Your task to perform on an android device: Add acer predator to the cart on newegg, then select checkout. Image 0: 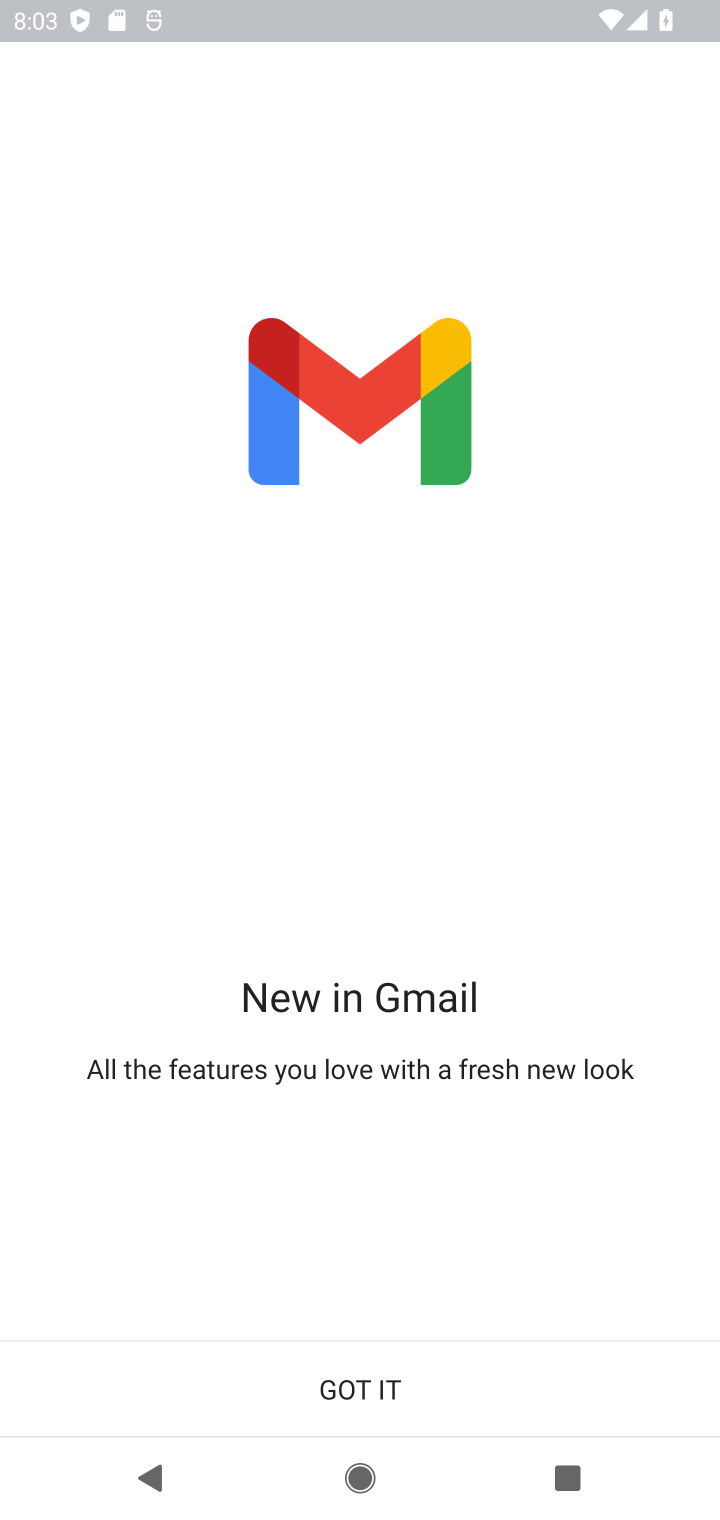
Step 0: press home button
Your task to perform on an android device: Add acer predator to the cart on newegg, then select checkout. Image 1: 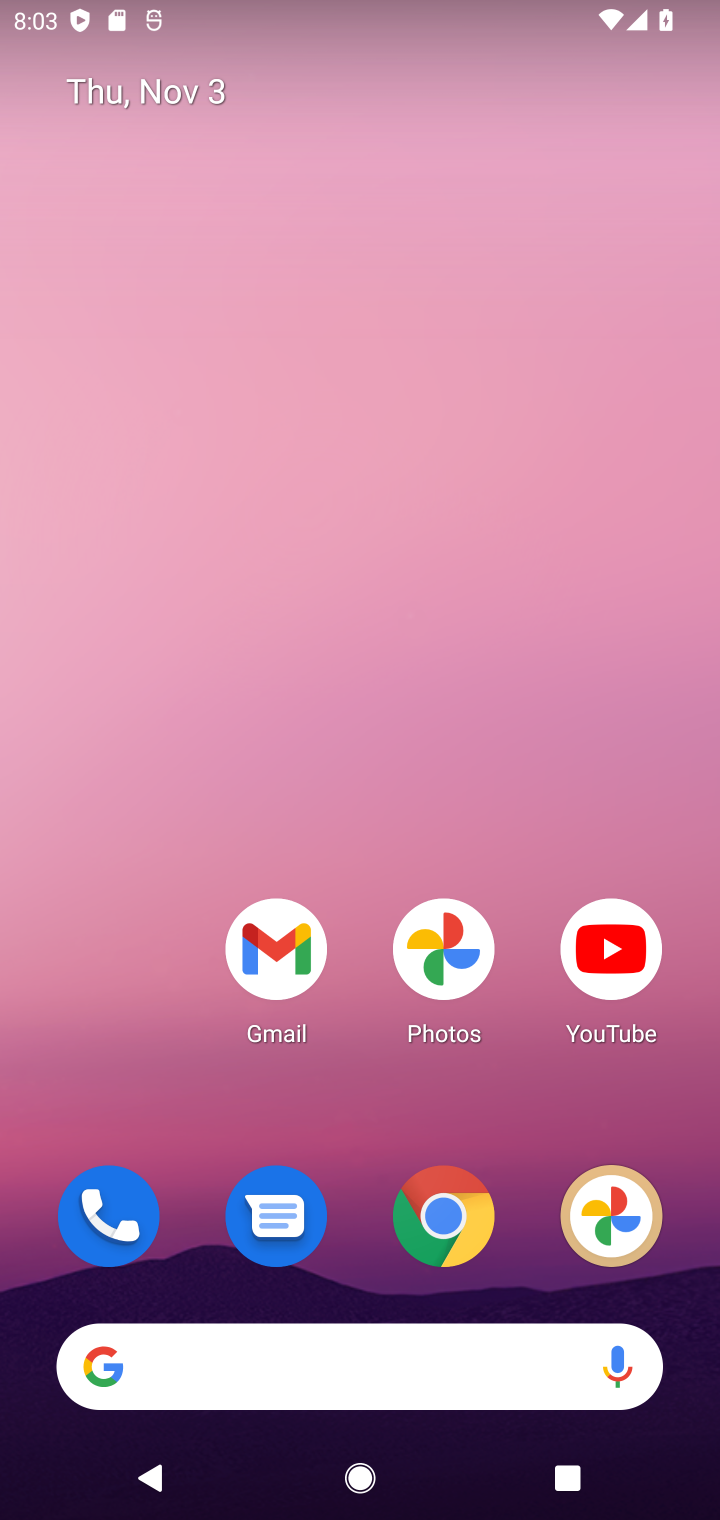
Step 1: click (455, 1250)
Your task to perform on an android device: Add acer predator to the cart on newegg, then select checkout. Image 2: 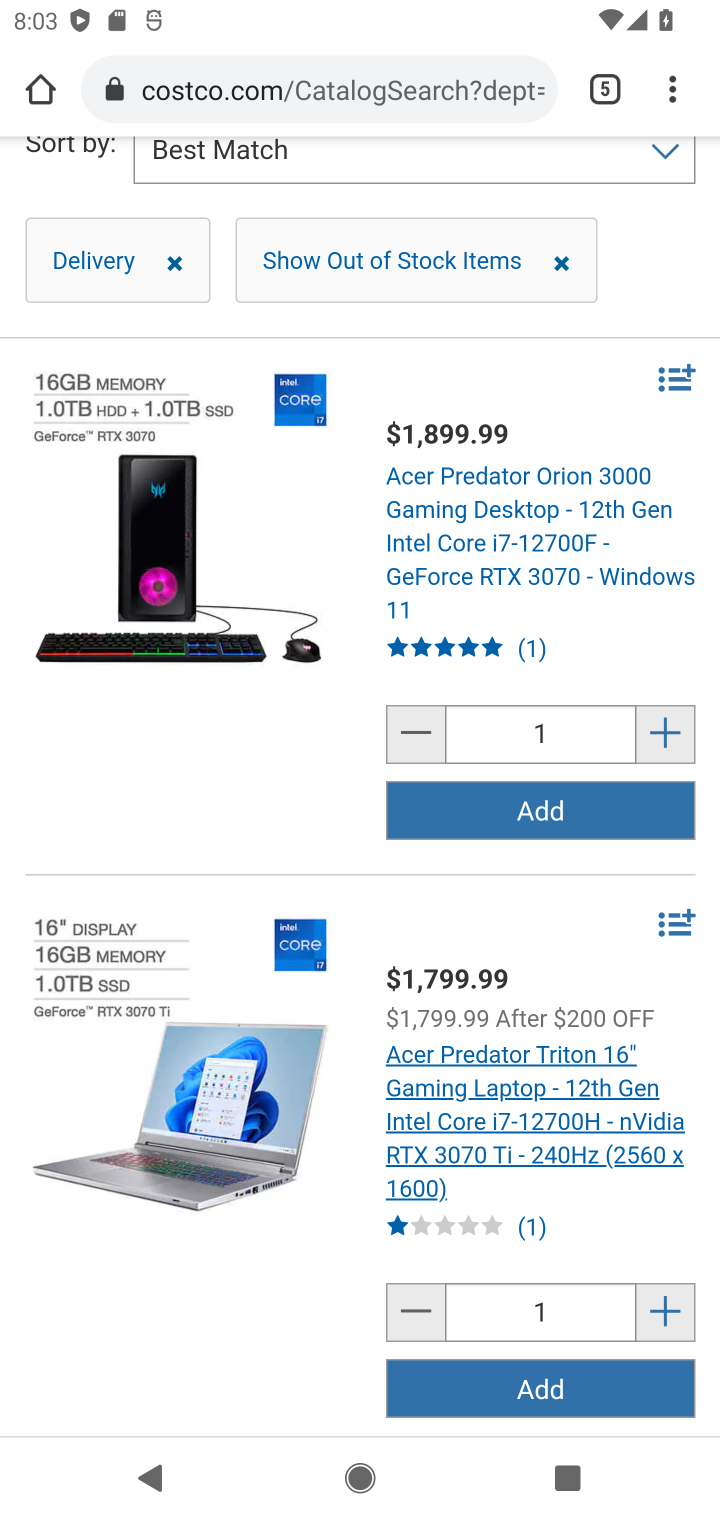
Step 2: click (594, 88)
Your task to perform on an android device: Add acer predator to the cart on newegg, then select checkout. Image 3: 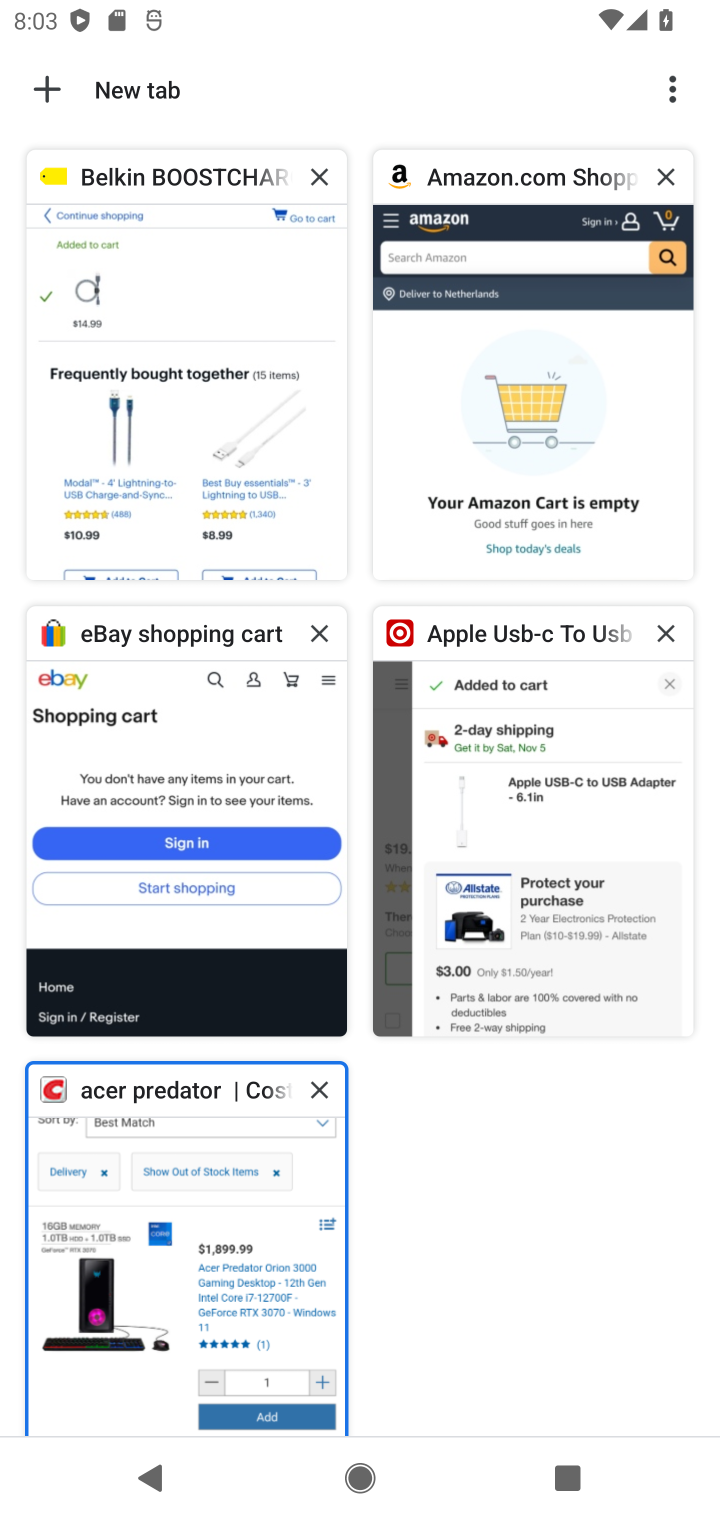
Step 3: click (110, 96)
Your task to perform on an android device: Add acer predator to the cart on newegg, then select checkout. Image 4: 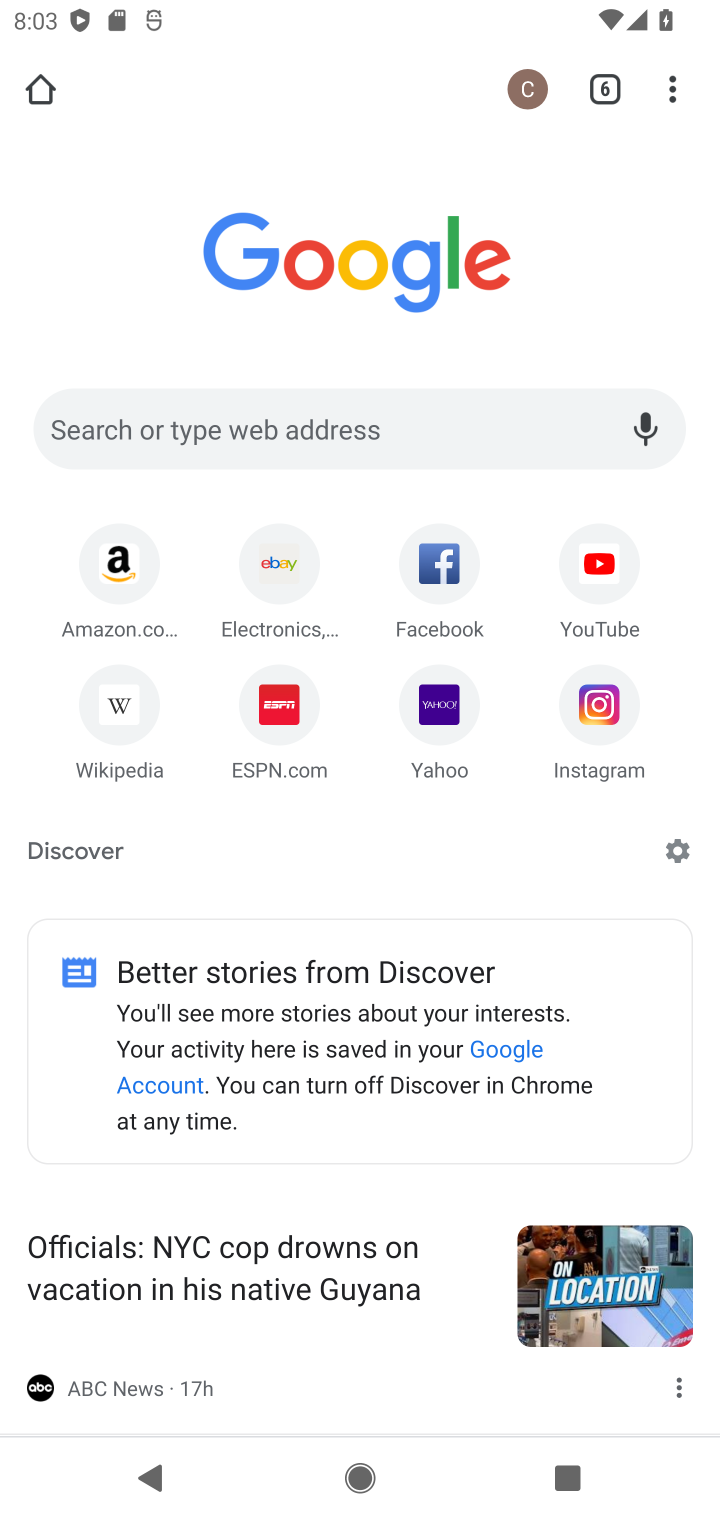
Step 4: click (229, 429)
Your task to perform on an android device: Add acer predator to the cart on newegg, then select checkout. Image 5: 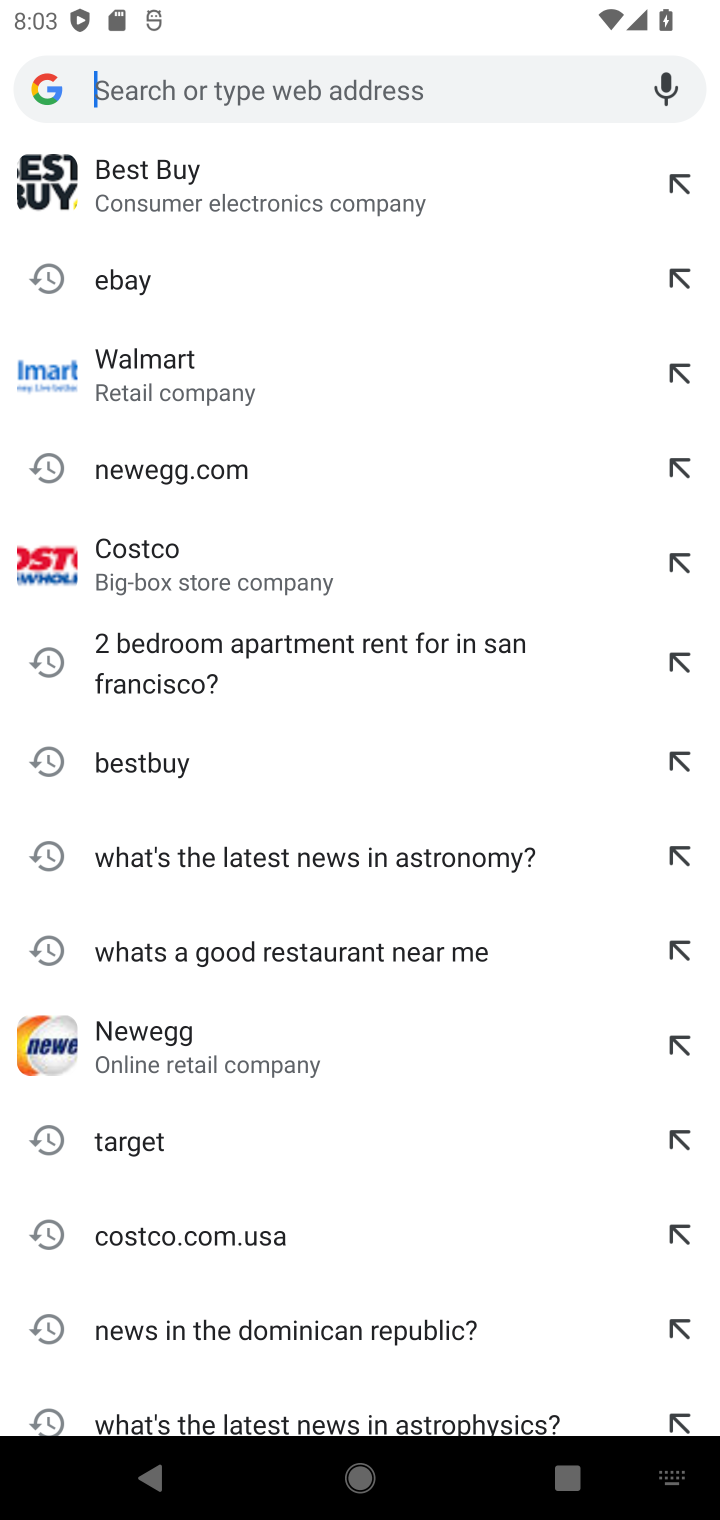
Step 5: click (194, 1047)
Your task to perform on an android device: Add acer predator to the cart on newegg, then select checkout. Image 6: 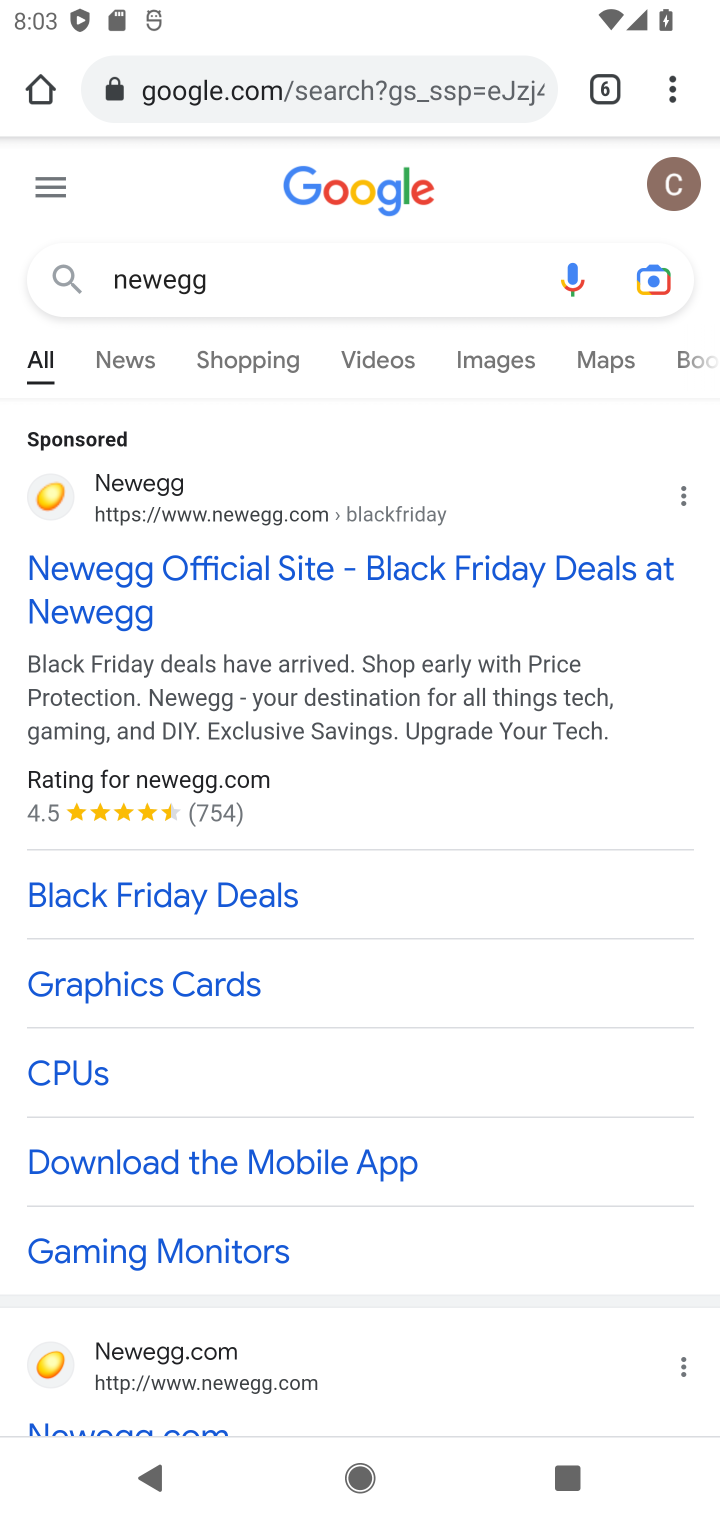
Step 6: click (395, 576)
Your task to perform on an android device: Add acer predator to the cart on newegg, then select checkout. Image 7: 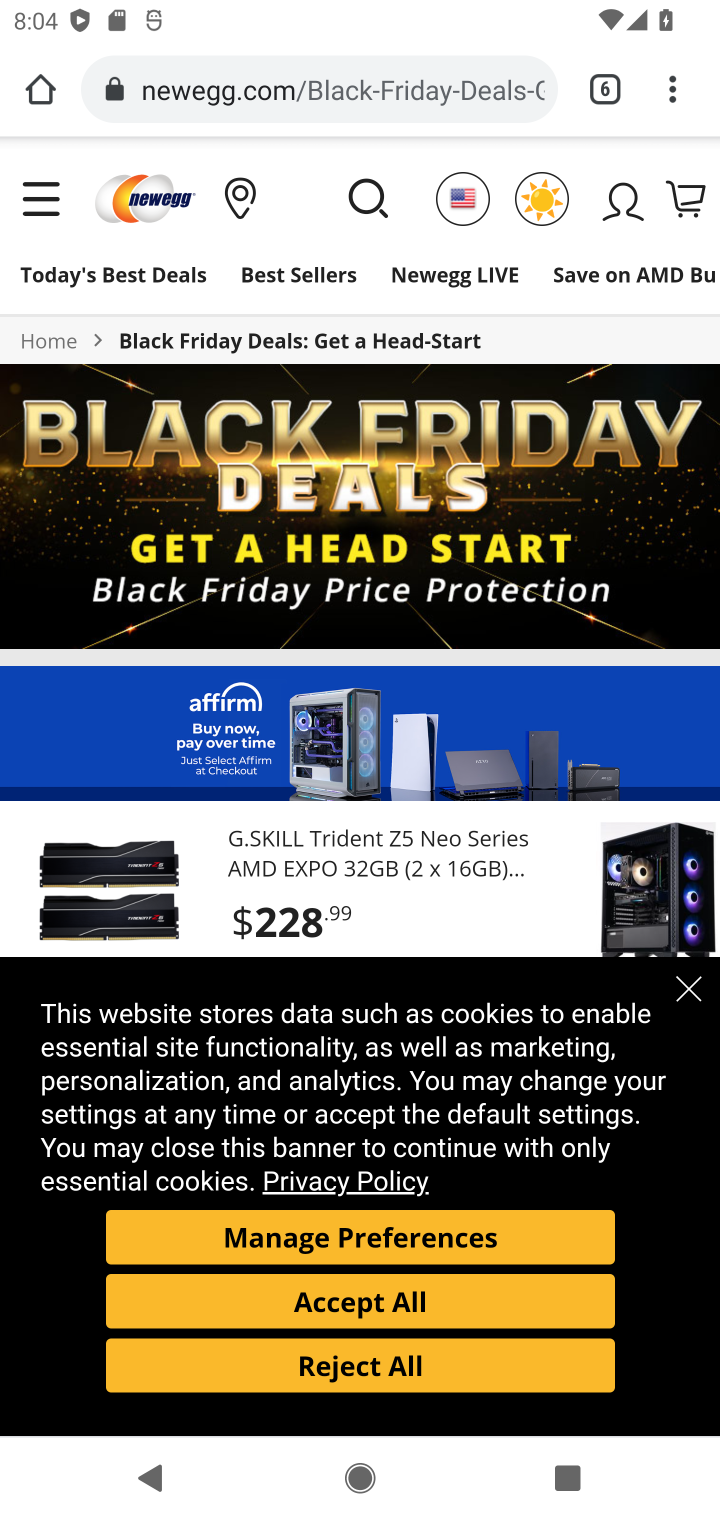
Step 7: click (460, 194)
Your task to perform on an android device: Add acer predator to the cart on newegg, then select checkout. Image 8: 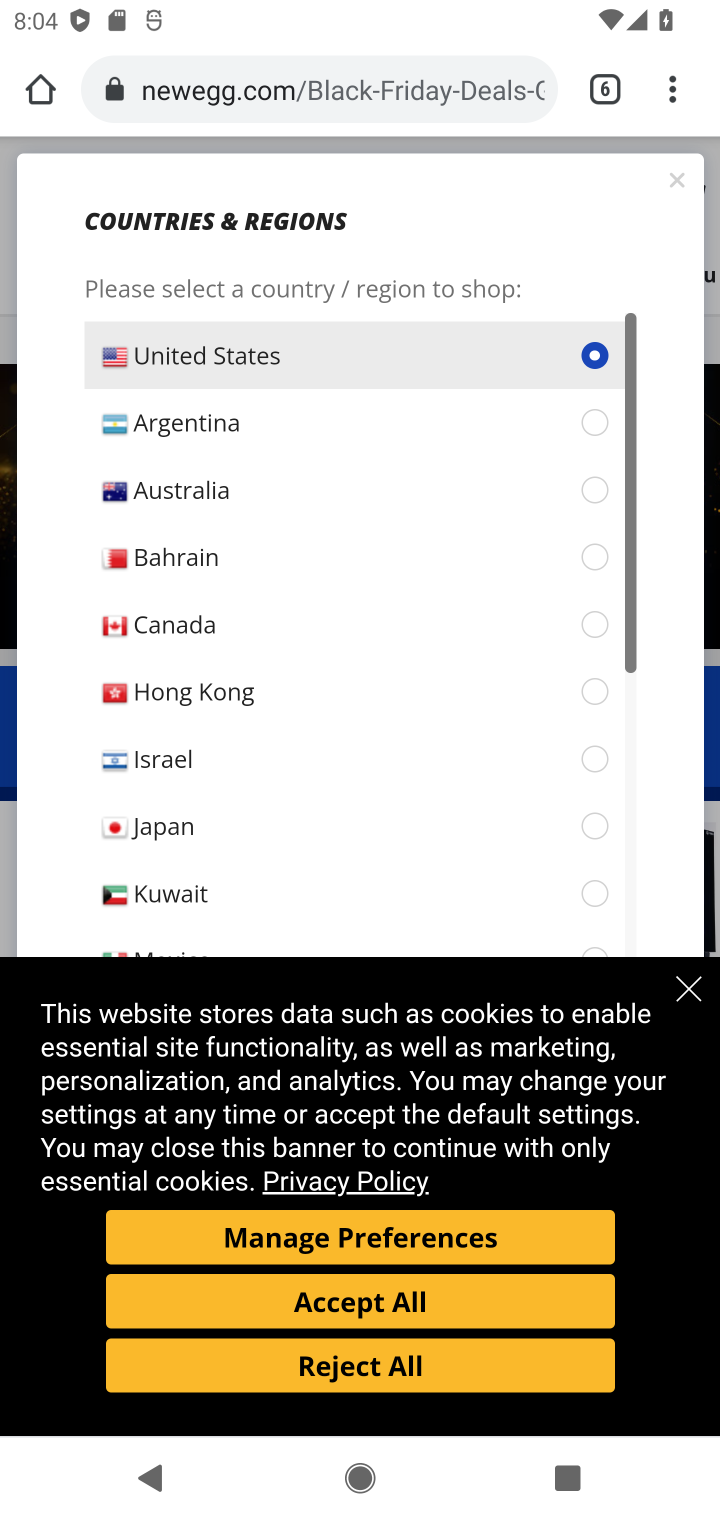
Step 8: click (676, 178)
Your task to perform on an android device: Add acer predator to the cart on newegg, then select checkout. Image 9: 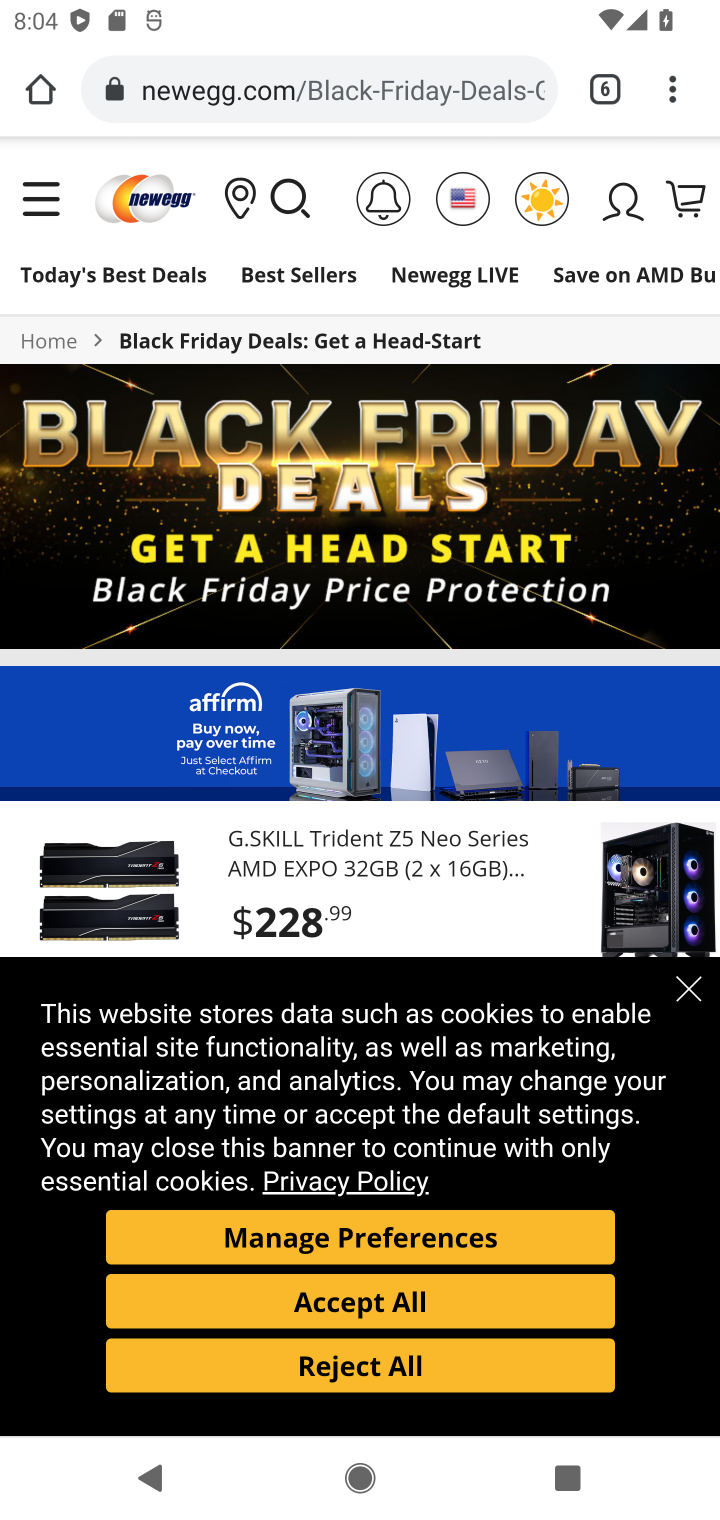
Step 9: click (284, 203)
Your task to perform on an android device: Add acer predator to the cart on newegg, then select checkout. Image 10: 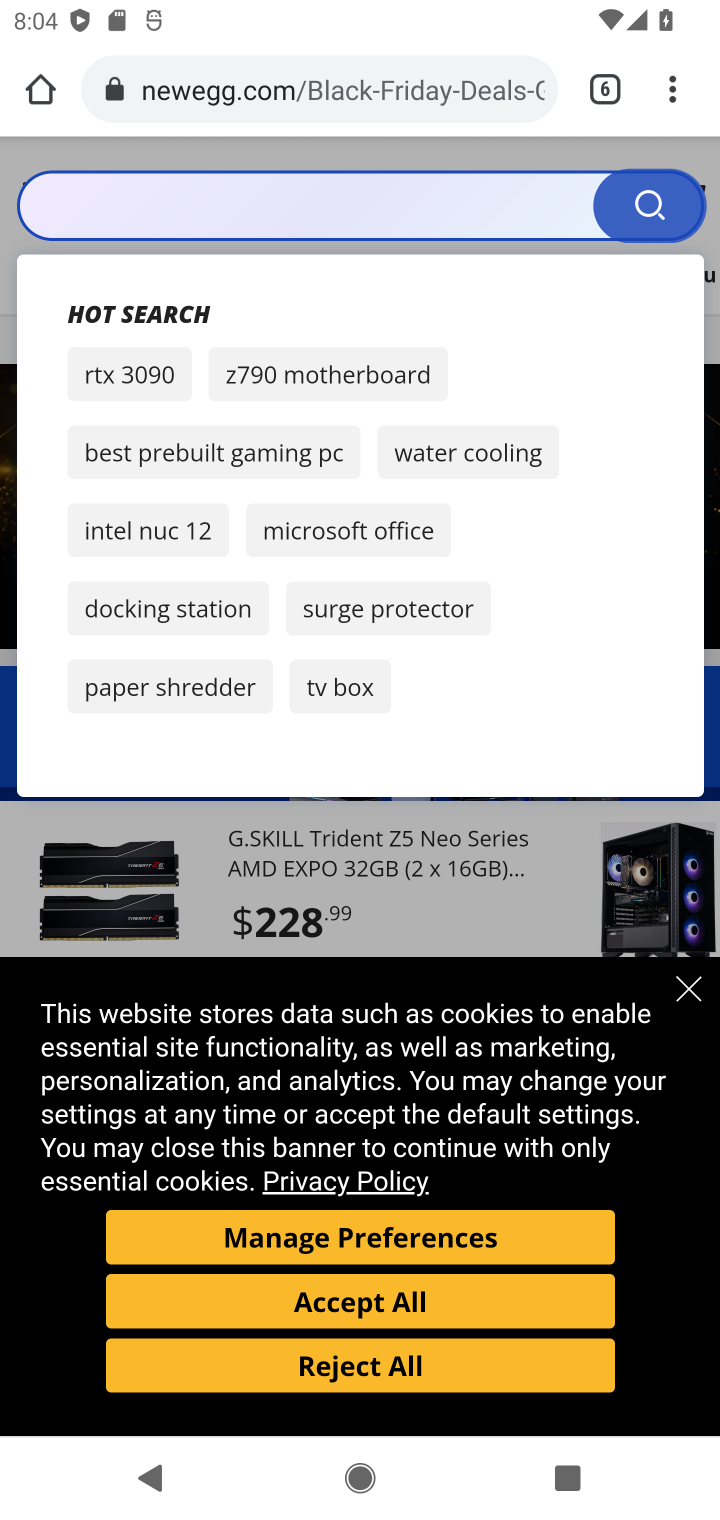
Step 10: click (274, 213)
Your task to perform on an android device: Add acer predator to the cart on newegg, then select checkout. Image 11: 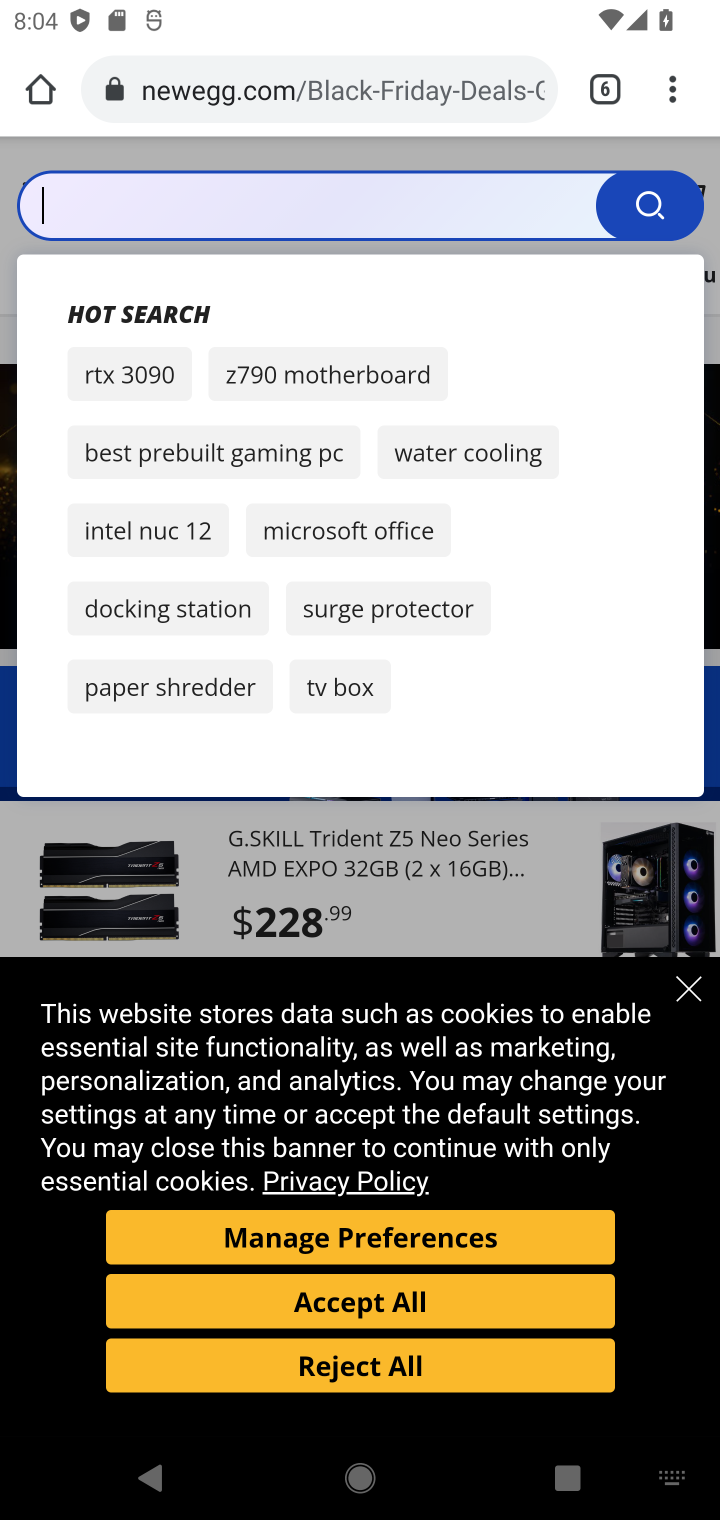
Step 11: type "acer predator"
Your task to perform on an android device: Add acer predator to the cart on newegg, then select checkout. Image 12: 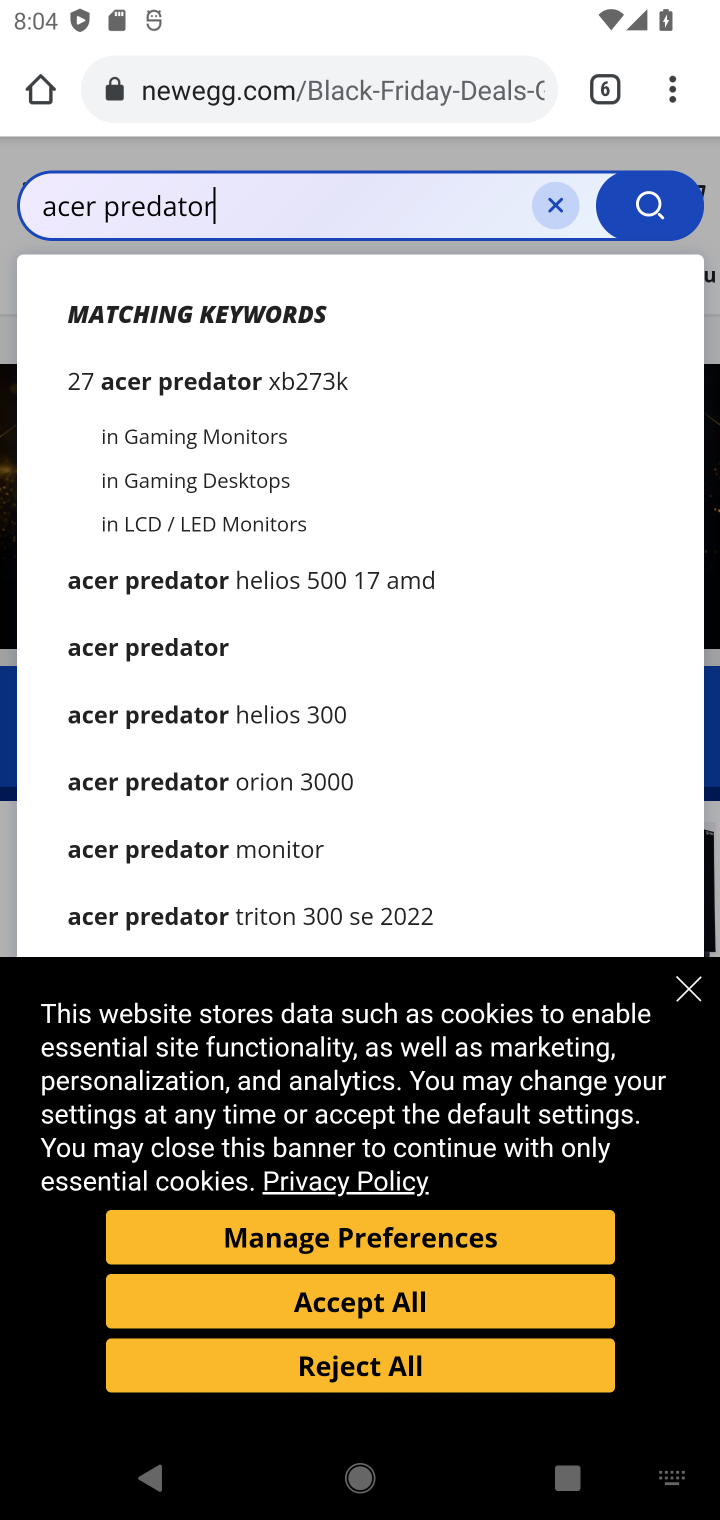
Step 12: click (647, 213)
Your task to perform on an android device: Add acer predator to the cart on newegg, then select checkout. Image 13: 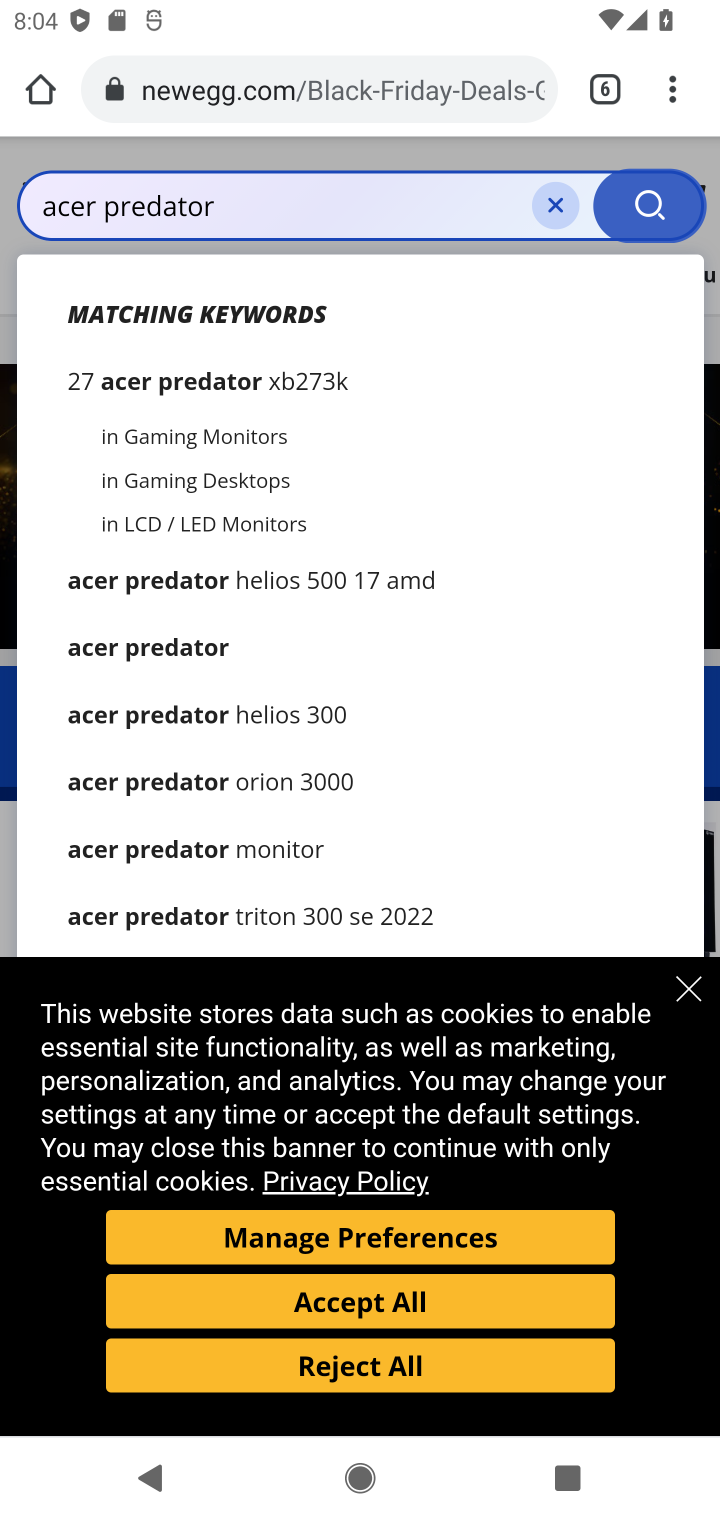
Step 13: press enter
Your task to perform on an android device: Add acer predator to the cart on newegg, then select checkout. Image 14: 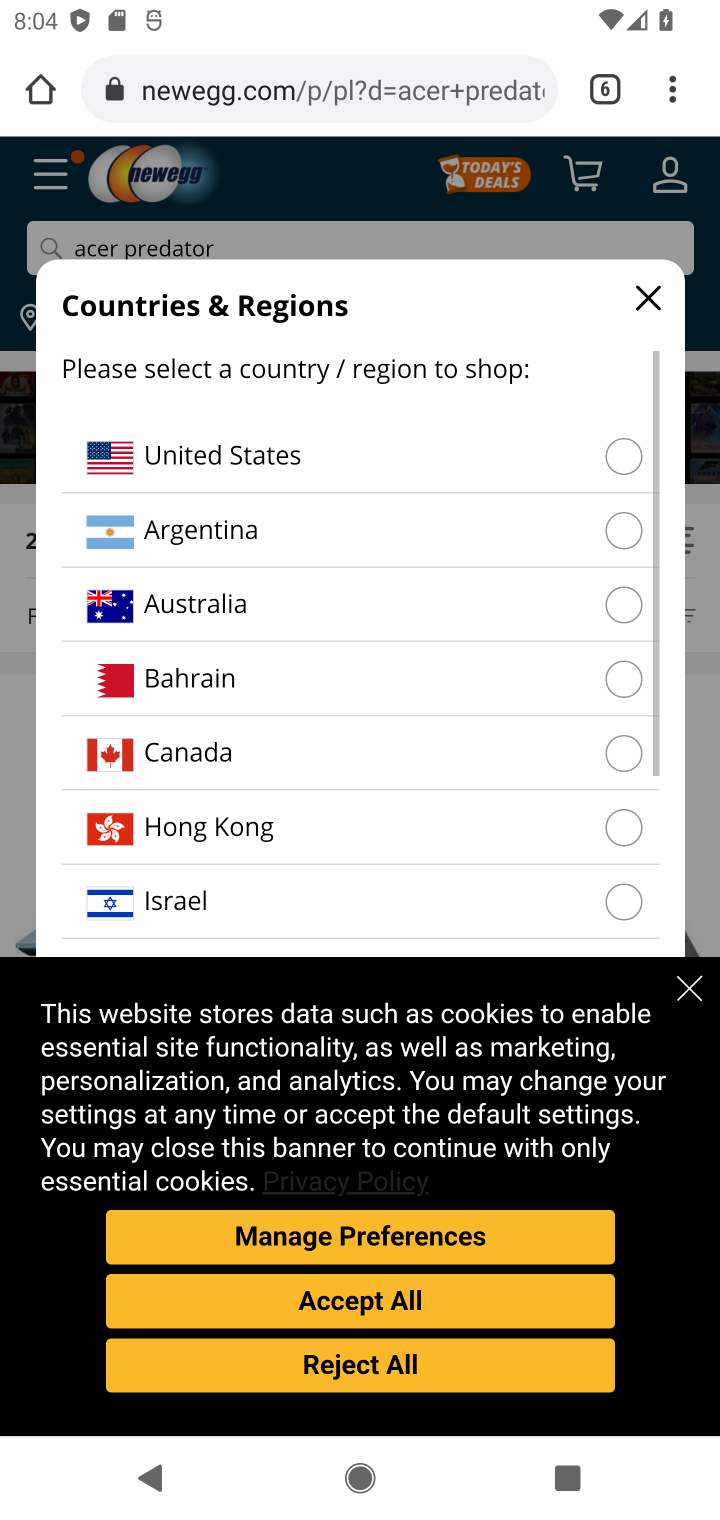
Step 14: click (692, 993)
Your task to perform on an android device: Add acer predator to the cart on newegg, then select checkout. Image 15: 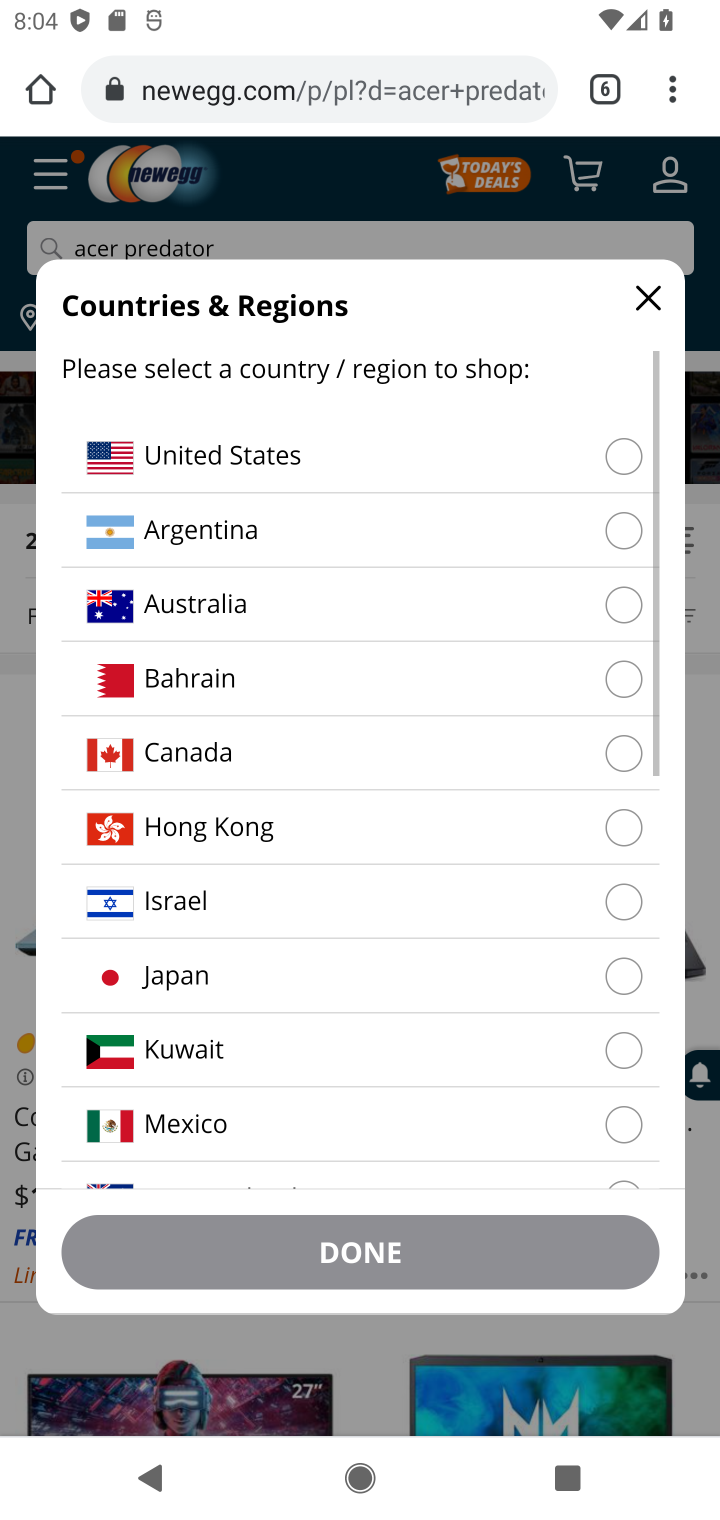
Step 15: click (620, 460)
Your task to perform on an android device: Add acer predator to the cart on newegg, then select checkout. Image 16: 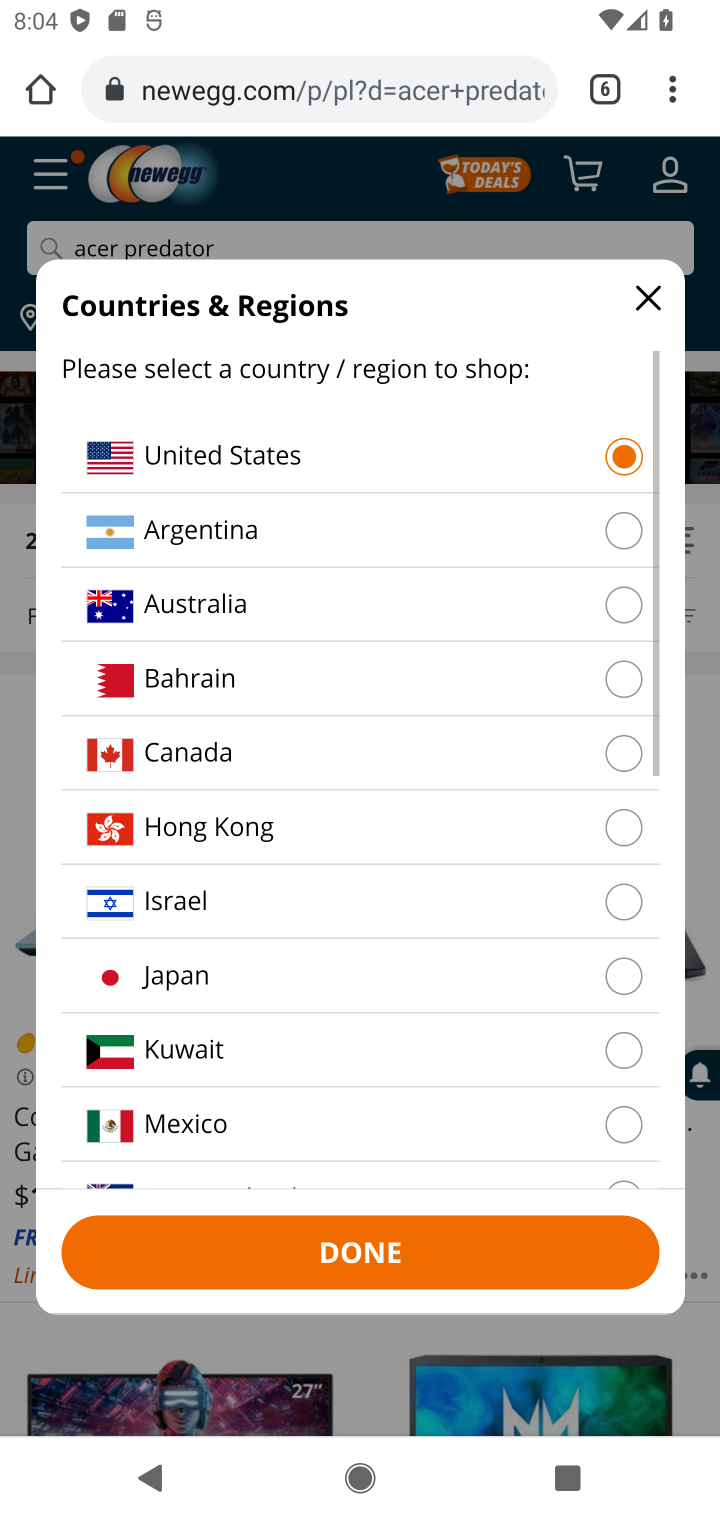
Step 16: click (282, 1258)
Your task to perform on an android device: Add acer predator to the cart on newegg, then select checkout. Image 17: 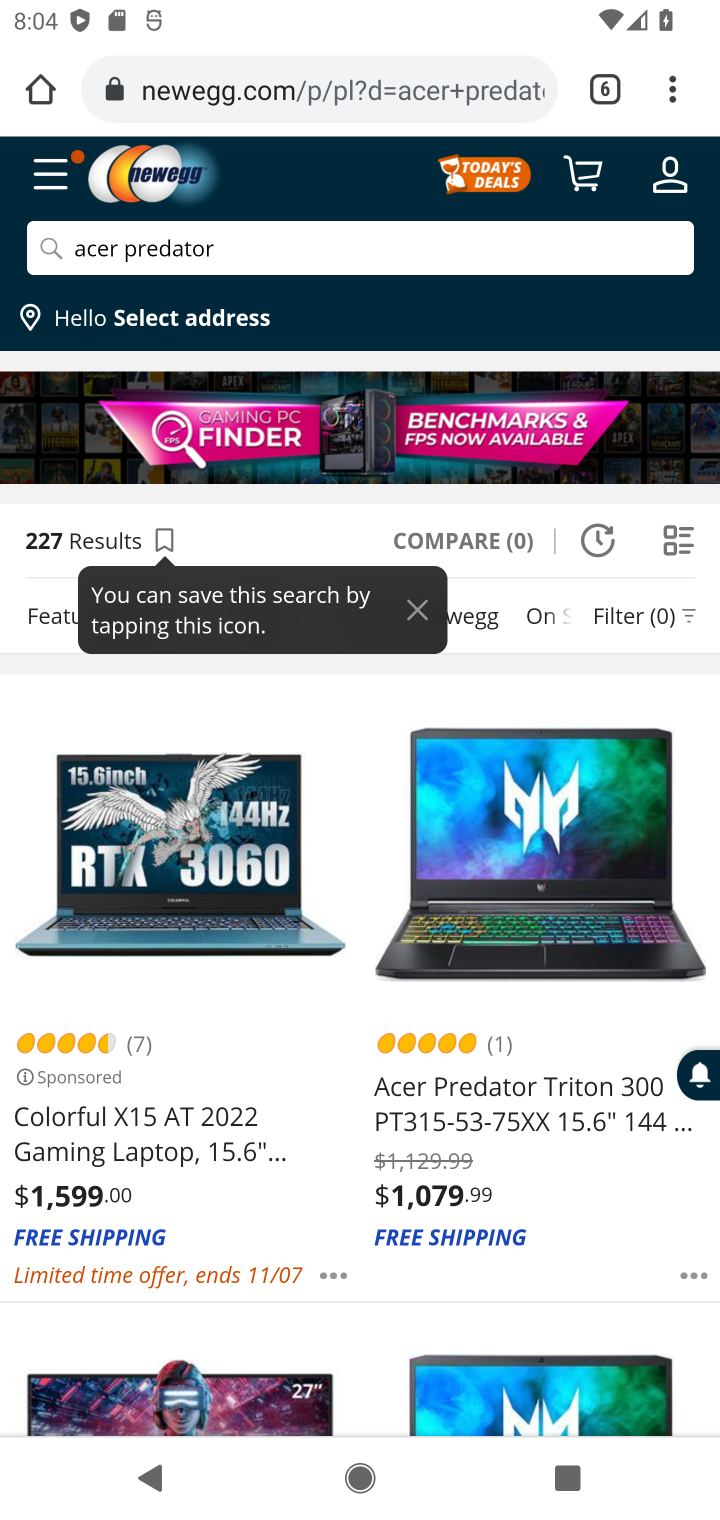
Step 17: drag from (258, 1308) to (226, 998)
Your task to perform on an android device: Add acer predator to the cart on newegg, then select checkout. Image 18: 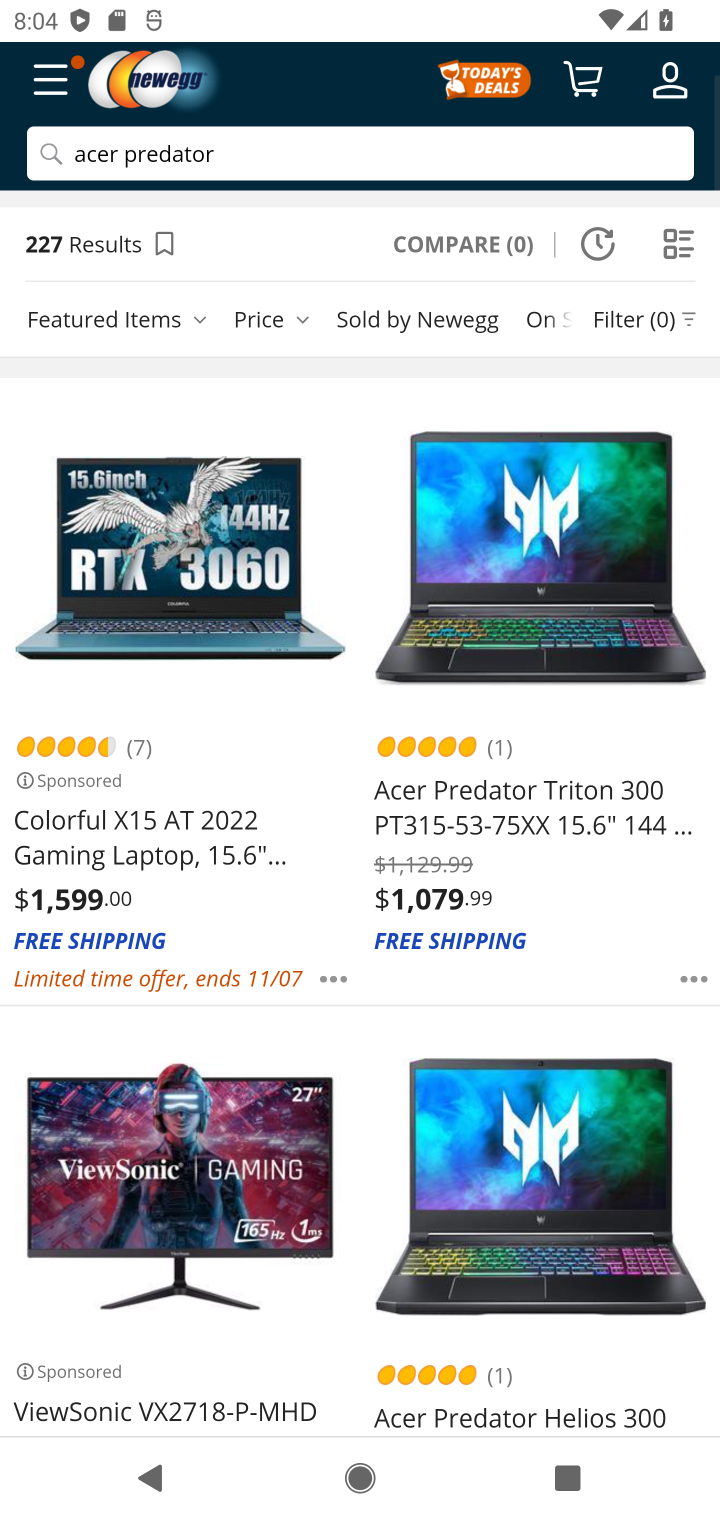
Step 18: click (489, 809)
Your task to perform on an android device: Add acer predator to the cart on newegg, then select checkout. Image 19: 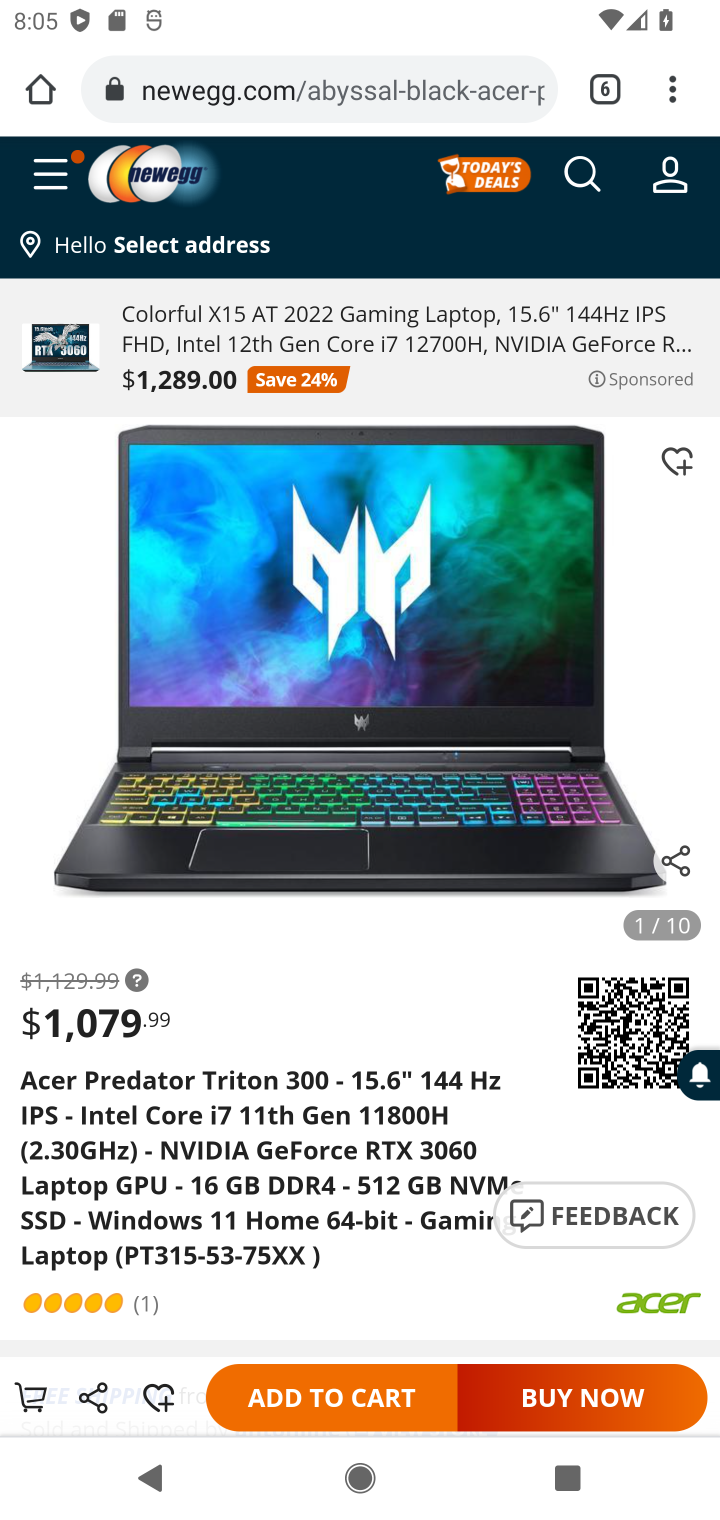
Step 19: press back button
Your task to perform on an android device: Add acer predator to the cart on newegg, then select checkout. Image 20: 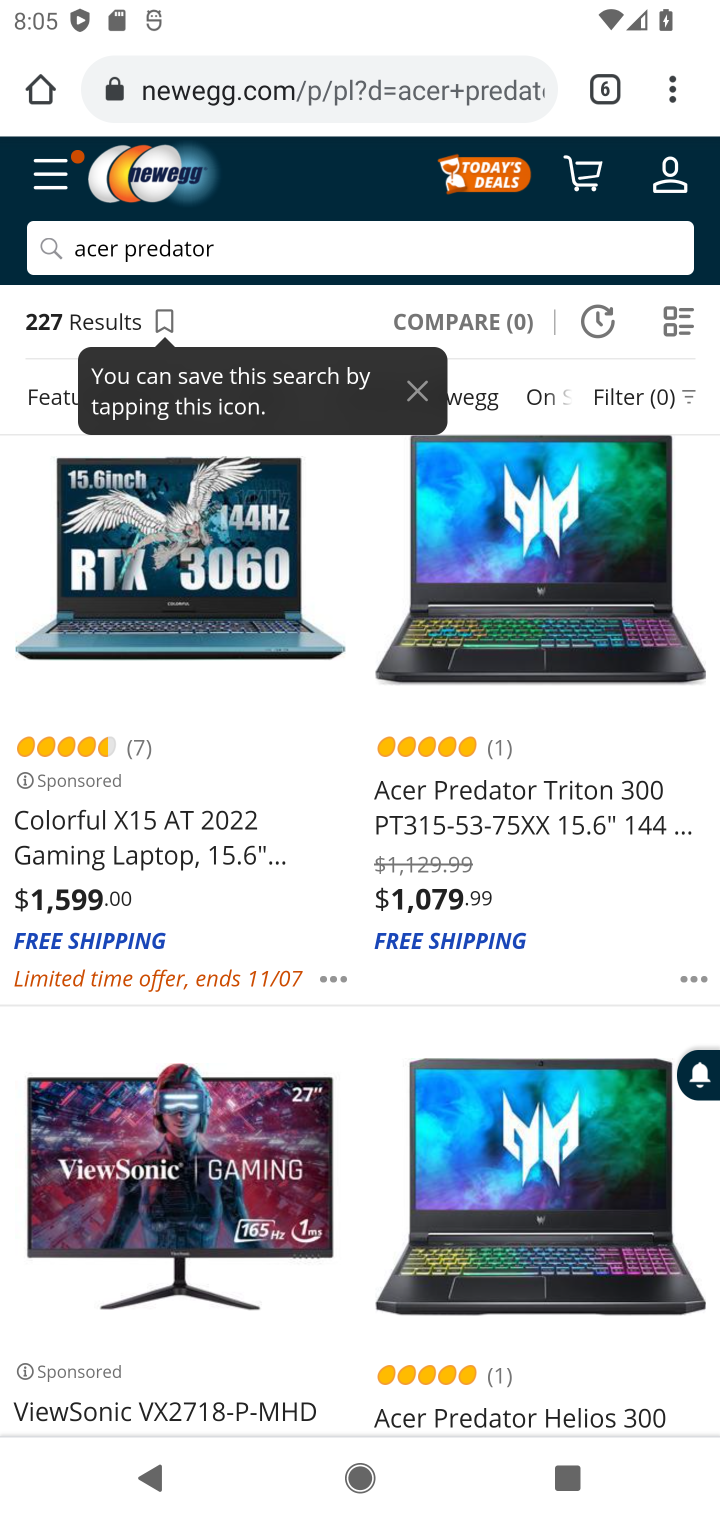
Step 20: click (354, 1358)
Your task to perform on an android device: Add acer predator to the cart on newegg, then select checkout. Image 21: 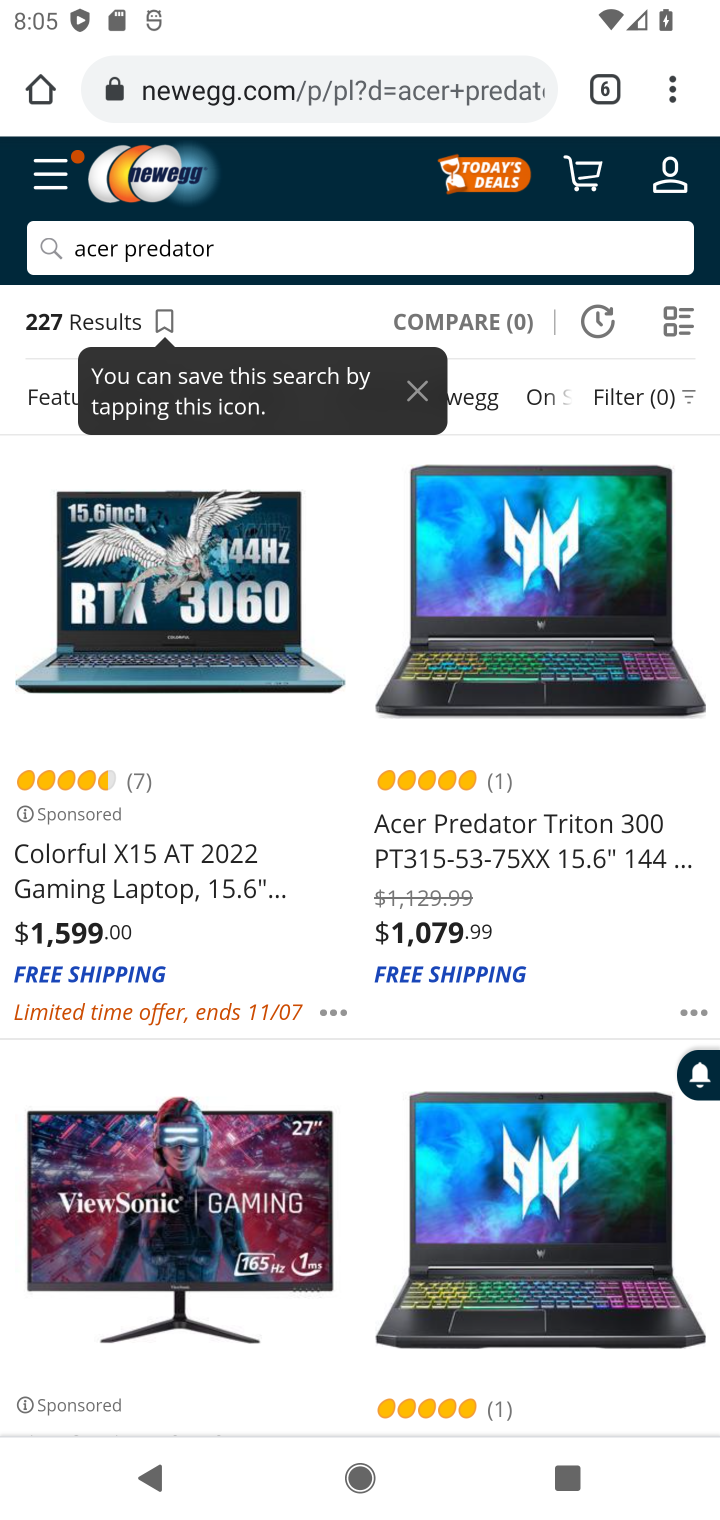
Step 21: task complete